Your task to perform on an android device: change notifications settings Image 0: 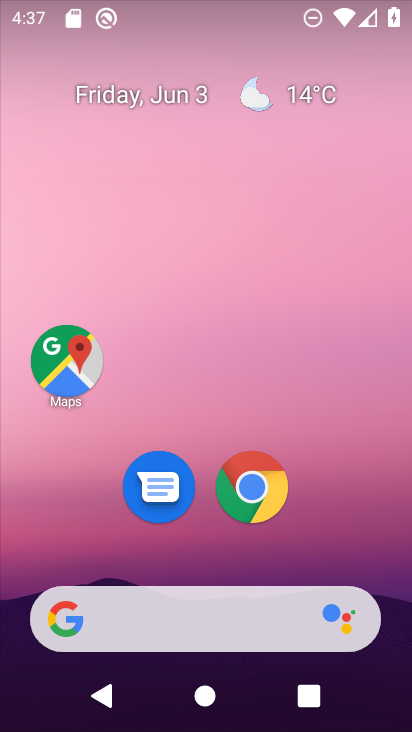
Step 0: drag from (215, 548) to (209, 7)
Your task to perform on an android device: change notifications settings Image 1: 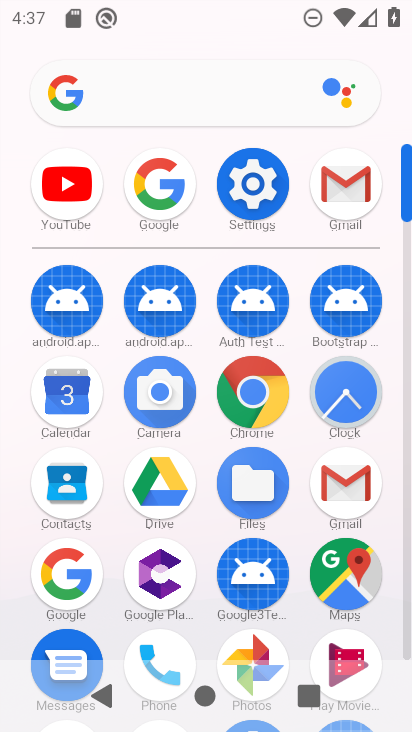
Step 1: click (248, 170)
Your task to perform on an android device: change notifications settings Image 2: 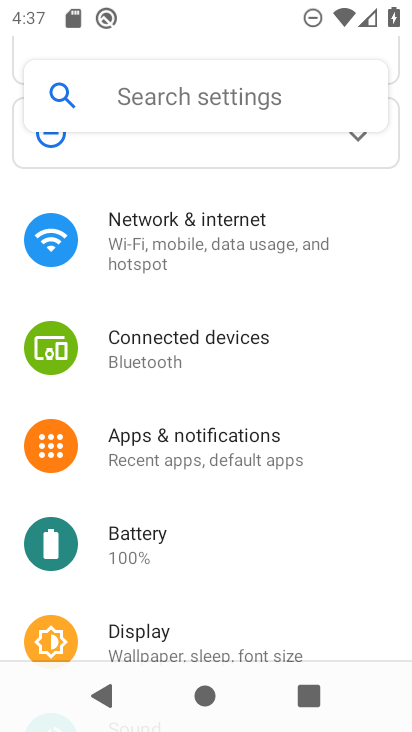
Step 2: drag from (245, 198) to (223, 649)
Your task to perform on an android device: change notifications settings Image 3: 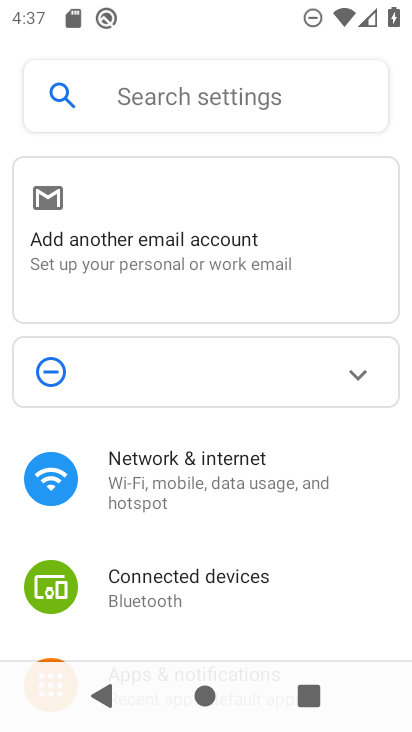
Step 3: drag from (215, 606) to (258, 250)
Your task to perform on an android device: change notifications settings Image 4: 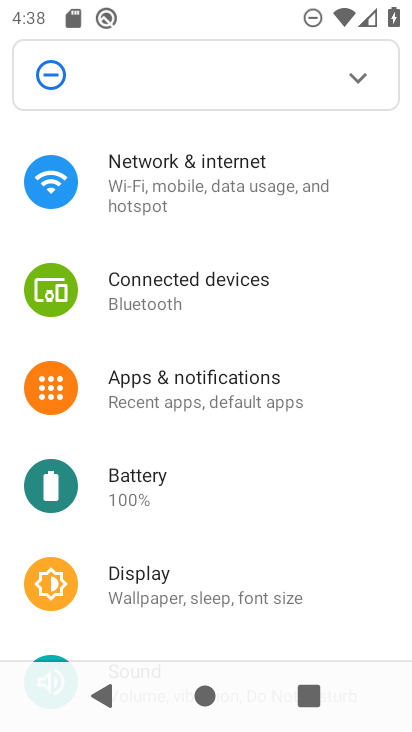
Step 4: click (209, 384)
Your task to perform on an android device: change notifications settings Image 5: 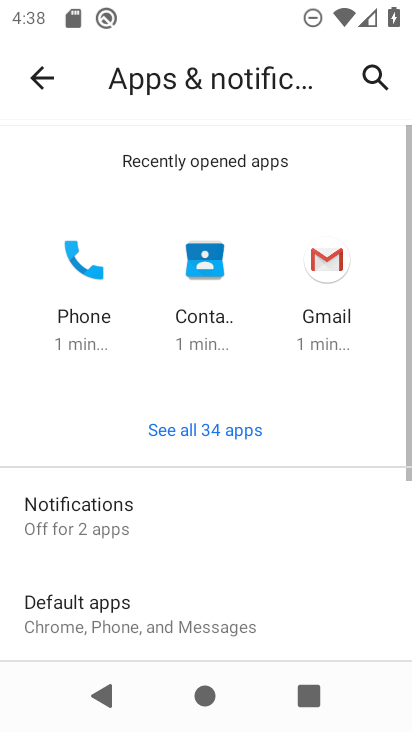
Step 5: click (123, 513)
Your task to perform on an android device: change notifications settings Image 6: 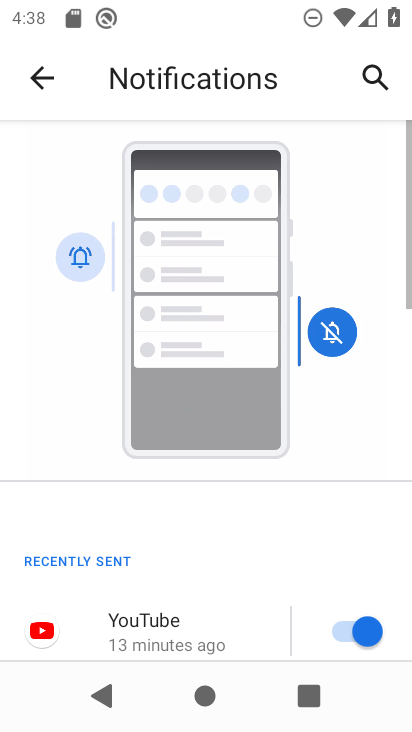
Step 6: drag from (170, 594) to (281, 28)
Your task to perform on an android device: change notifications settings Image 7: 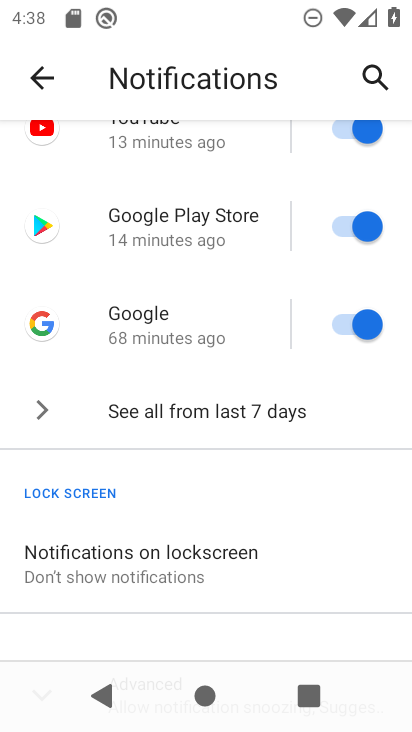
Step 7: drag from (244, 498) to (291, 38)
Your task to perform on an android device: change notifications settings Image 8: 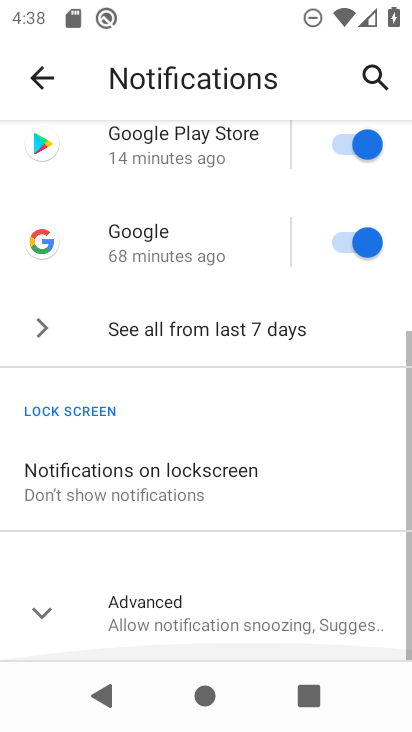
Step 8: click (145, 597)
Your task to perform on an android device: change notifications settings Image 9: 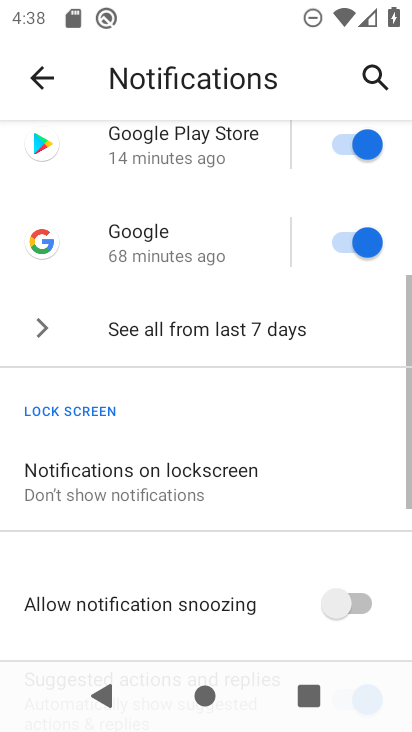
Step 9: drag from (154, 572) to (208, 245)
Your task to perform on an android device: change notifications settings Image 10: 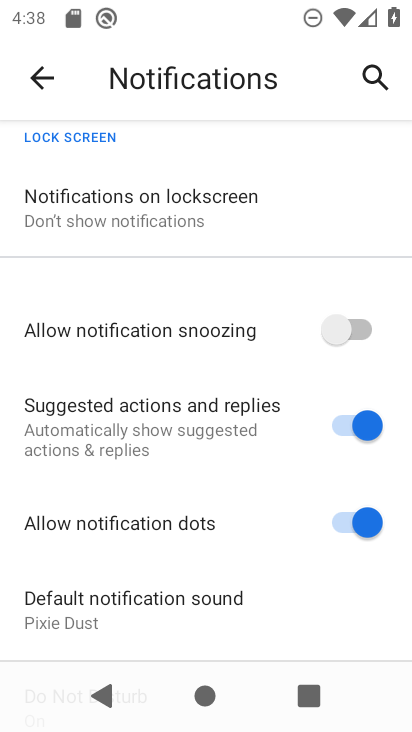
Step 10: click (356, 321)
Your task to perform on an android device: change notifications settings Image 11: 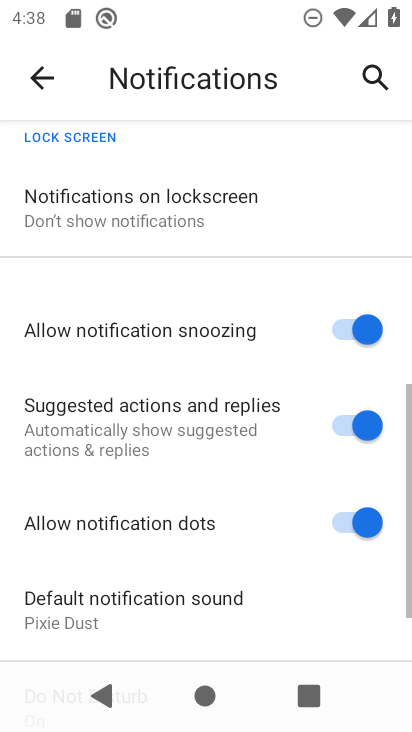
Step 11: task complete